Your task to perform on an android device: change keyboard looks Image 0: 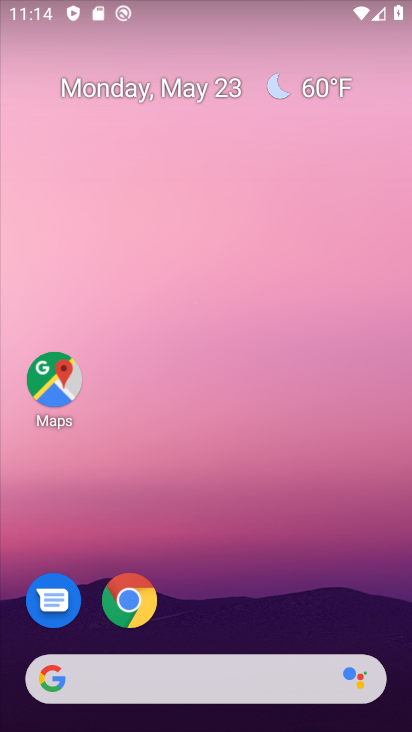
Step 0: drag from (230, 694) to (211, 148)
Your task to perform on an android device: change keyboard looks Image 1: 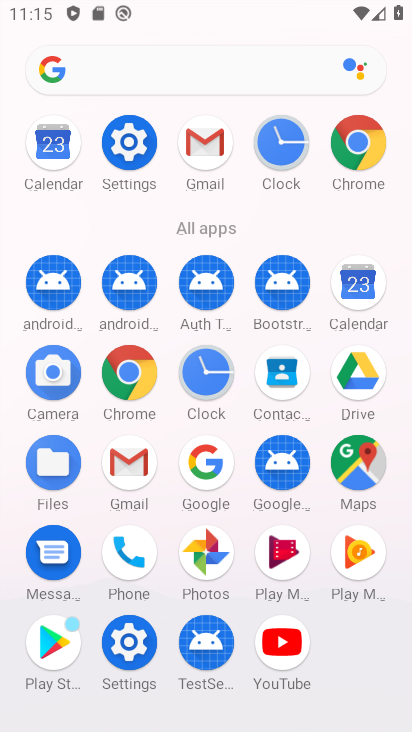
Step 1: click (145, 150)
Your task to perform on an android device: change keyboard looks Image 2: 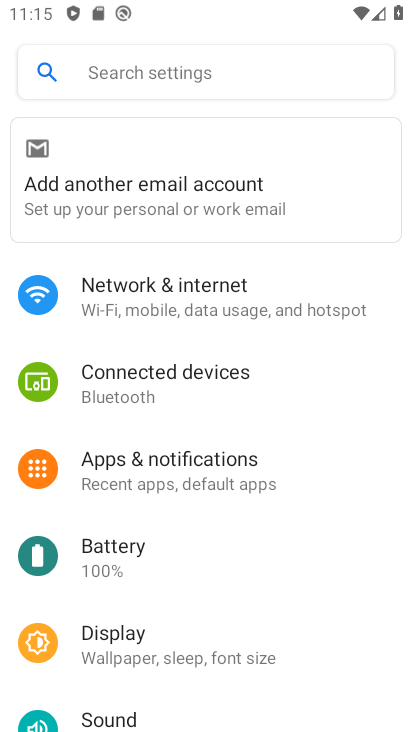
Step 2: click (169, 77)
Your task to perform on an android device: change keyboard looks Image 3: 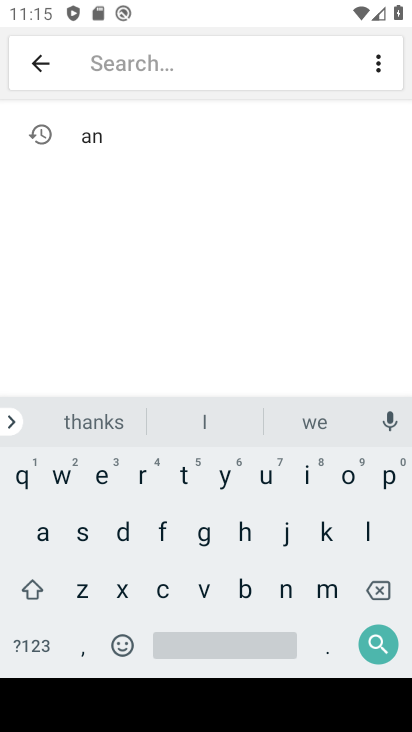
Step 3: click (330, 539)
Your task to perform on an android device: change keyboard looks Image 4: 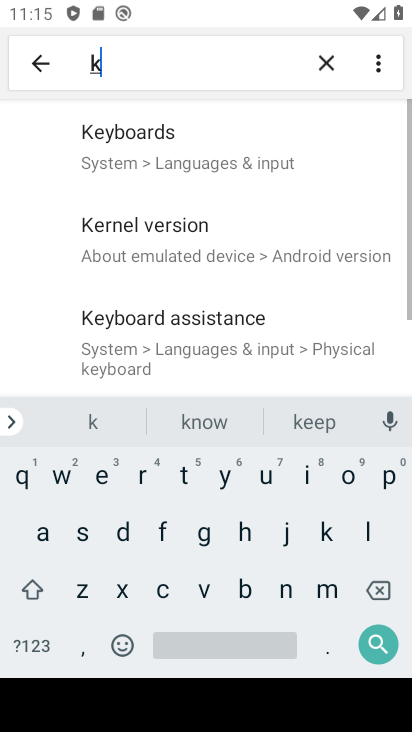
Step 4: click (106, 479)
Your task to perform on an android device: change keyboard looks Image 5: 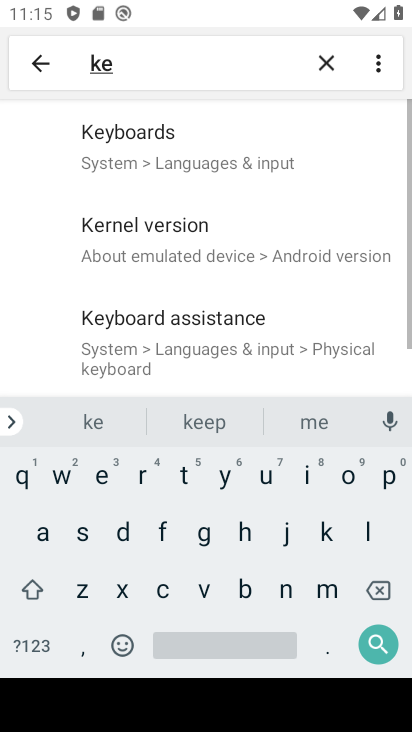
Step 5: click (216, 475)
Your task to perform on an android device: change keyboard looks Image 6: 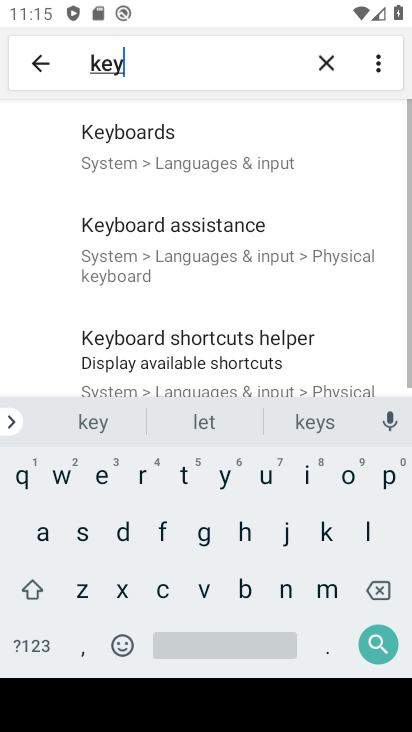
Step 6: click (170, 136)
Your task to perform on an android device: change keyboard looks Image 7: 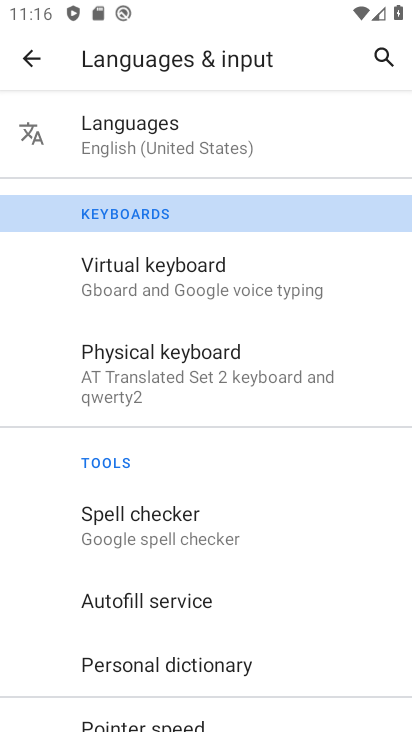
Step 7: click (183, 282)
Your task to perform on an android device: change keyboard looks Image 8: 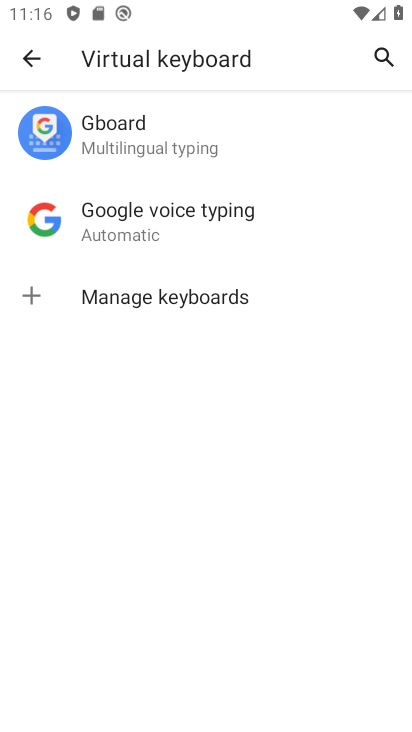
Step 8: click (136, 147)
Your task to perform on an android device: change keyboard looks Image 9: 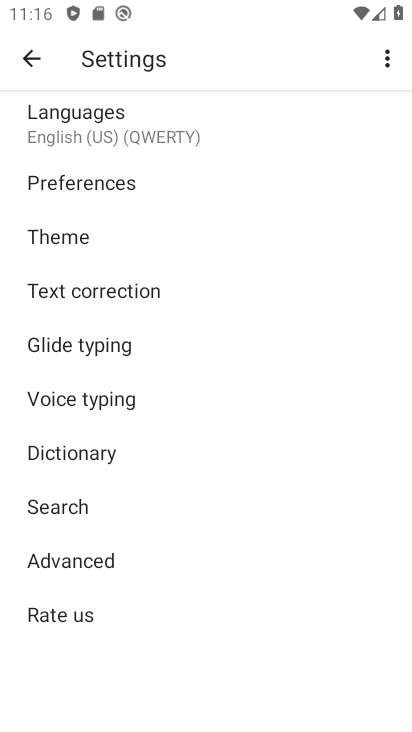
Step 9: click (103, 234)
Your task to perform on an android device: change keyboard looks Image 10: 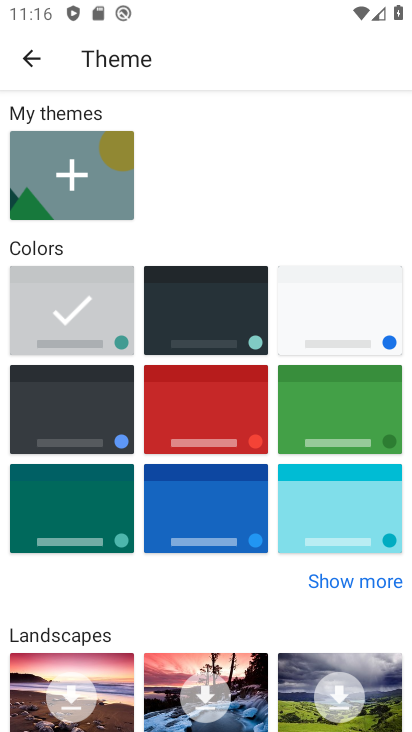
Step 10: click (190, 333)
Your task to perform on an android device: change keyboard looks Image 11: 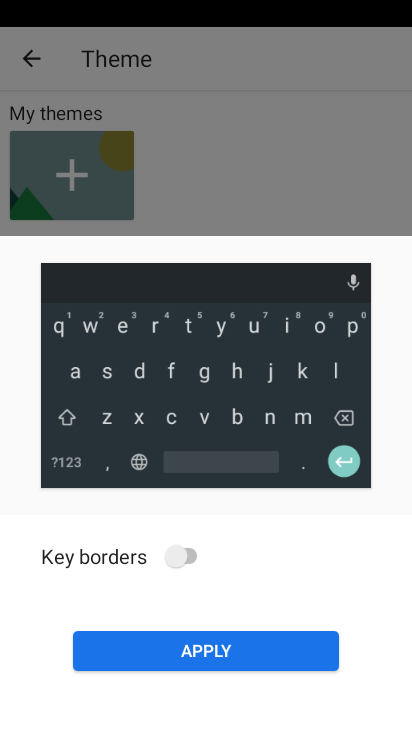
Step 11: click (196, 551)
Your task to perform on an android device: change keyboard looks Image 12: 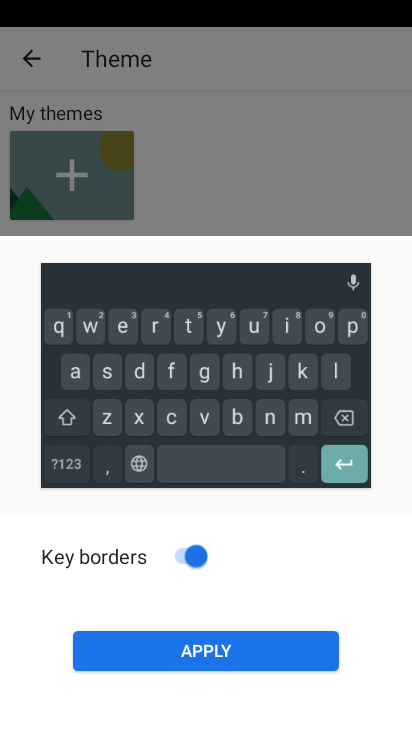
Step 12: click (236, 649)
Your task to perform on an android device: change keyboard looks Image 13: 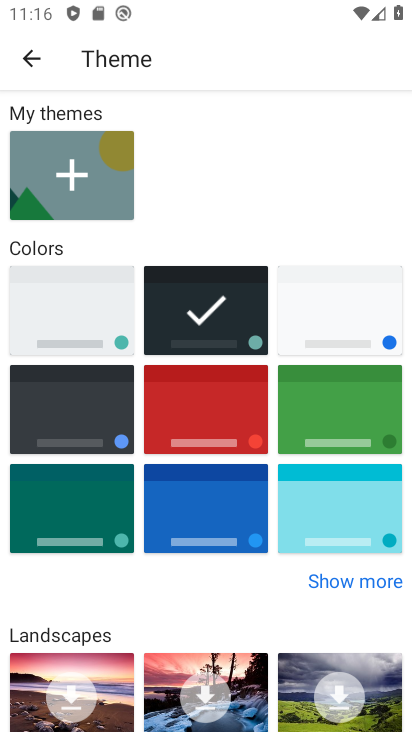
Step 13: task complete